Your task to perform on an android device: open a bookmark in the chrome app Image 0: 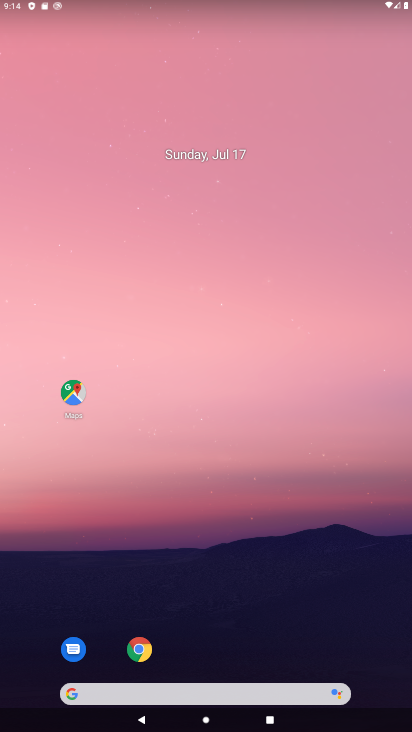
Step 0: click (128, 639)
Your task to perform on an android device: open a bookmark in the chrome app Image 1: 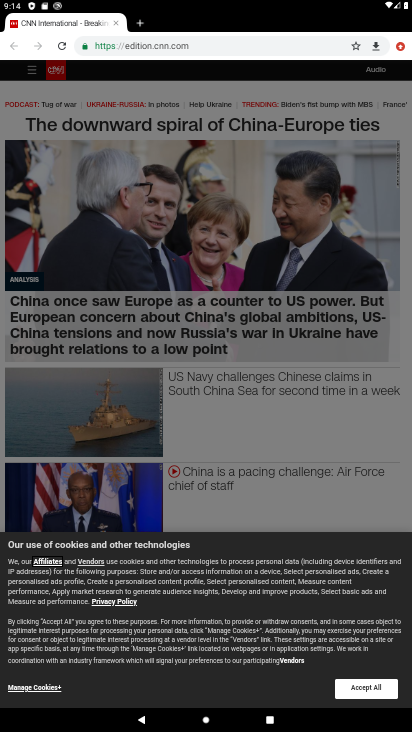
Step 1: click (324, 45)
Your task to perform on an android device: open a bookmark in the chrome app Image 2: 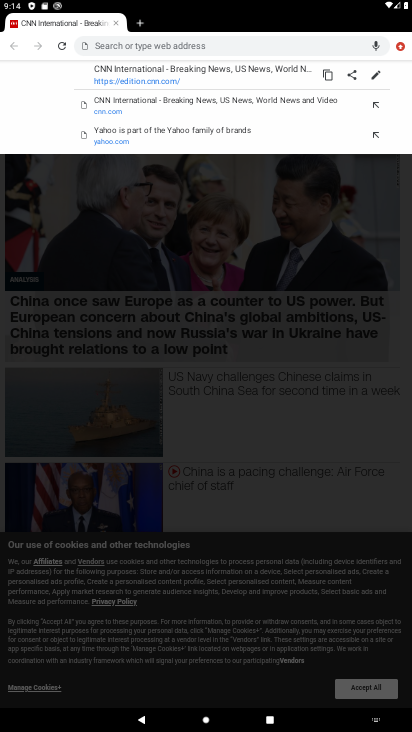
Step 2: task complete